Your task to perform on an android device: open app "Roku - Official Remote Control" Image 0: 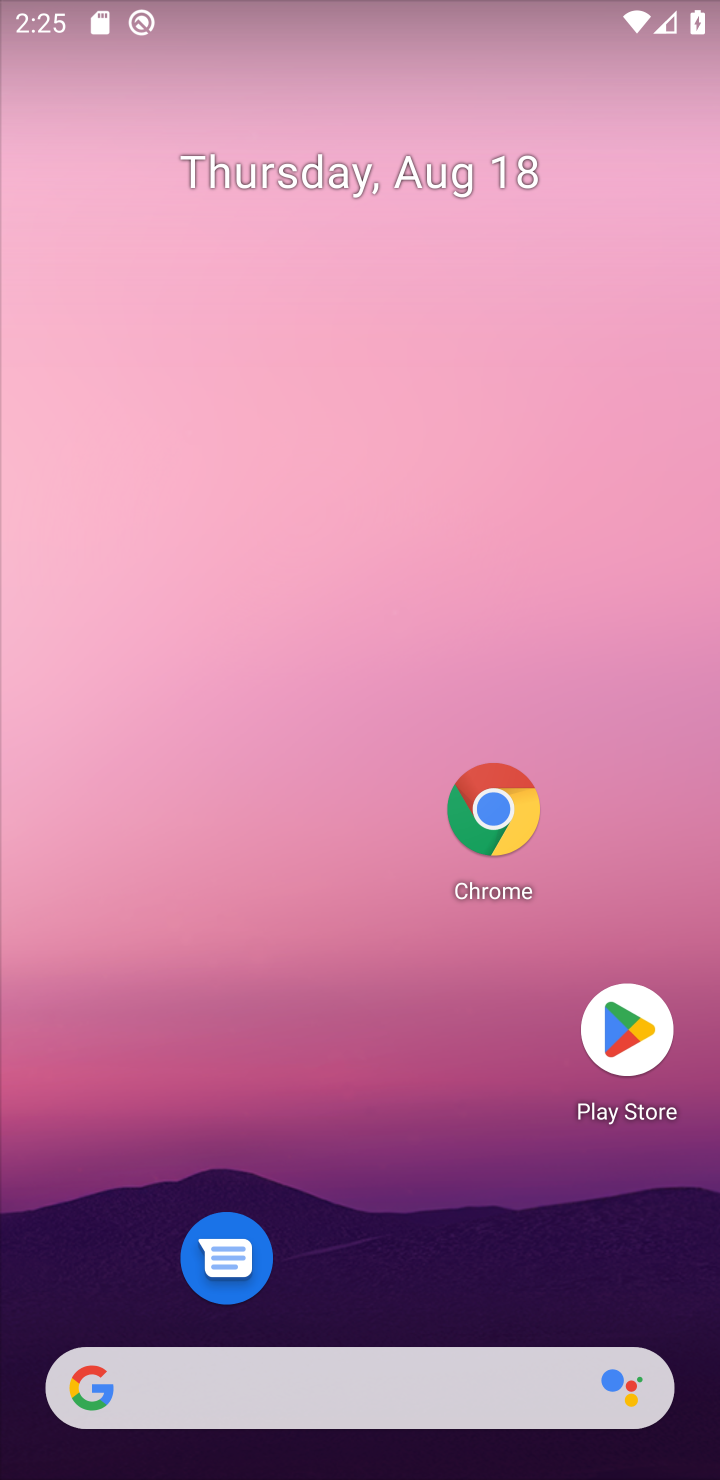
Step 0: drag from (428, 1351) to (536, 394)
Your task to perform on an android device: open app "Roku - Official Remote Control" Image 1: 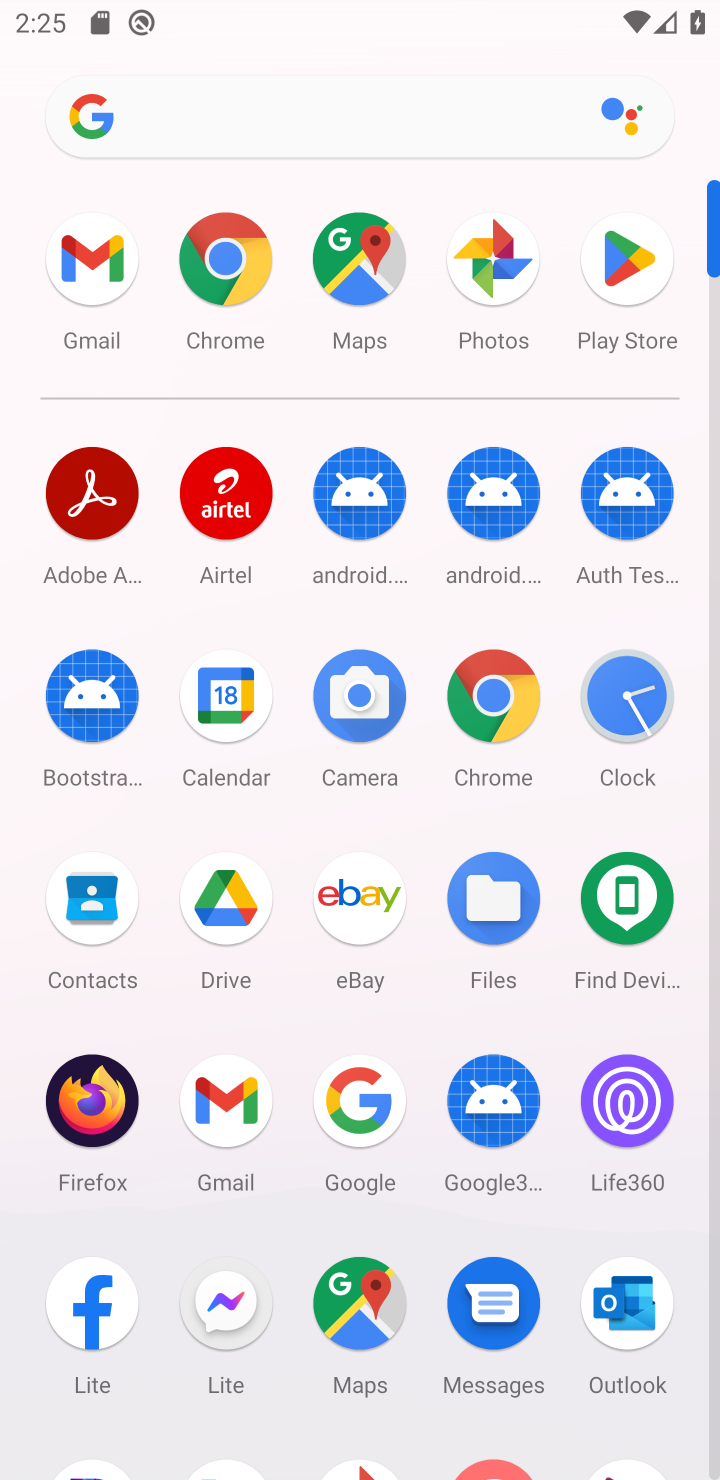
Step 1: click (637, 290)
Your task to perform on an android device: open app "Roku - Official Remote Control" Image 2: 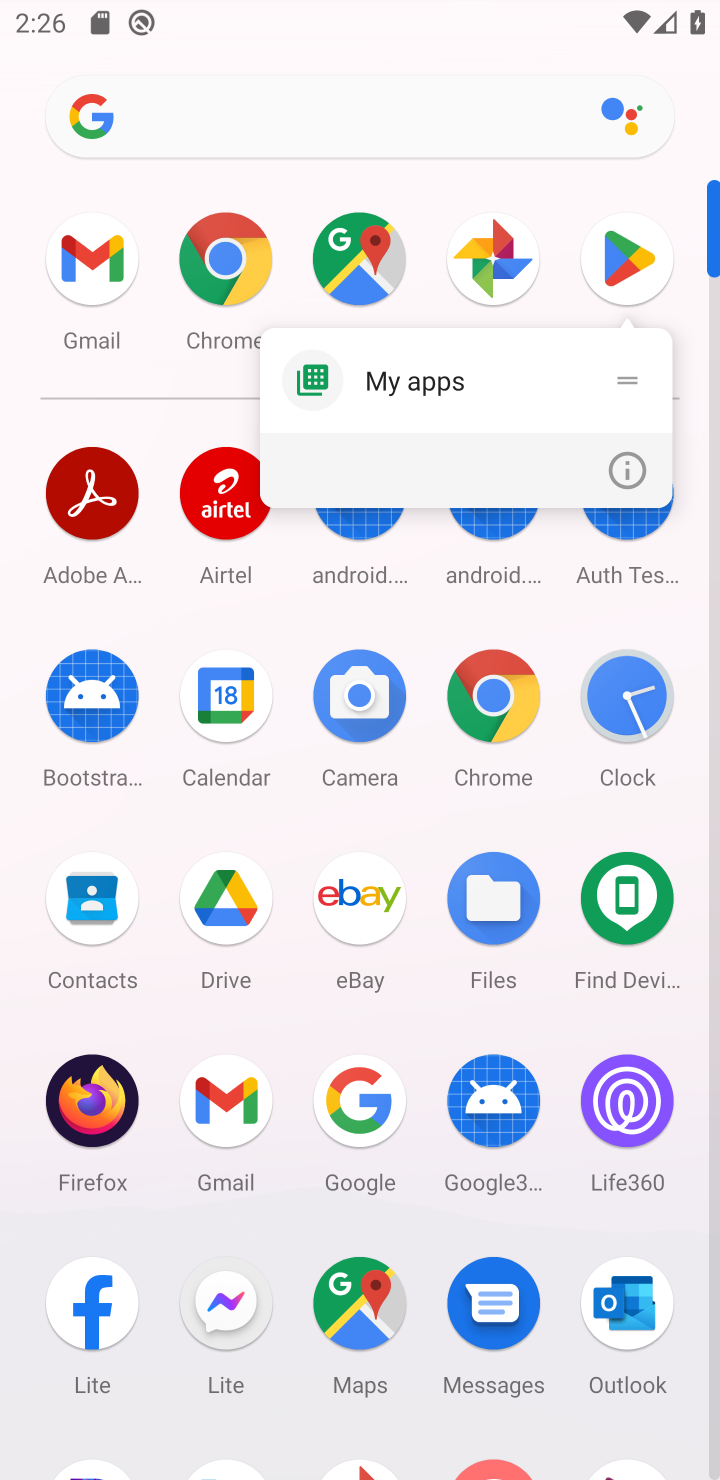
Step 2: click (621, 251)
Your task to perform on an android device: open app "Roku - Official Remote Control" Image 3: 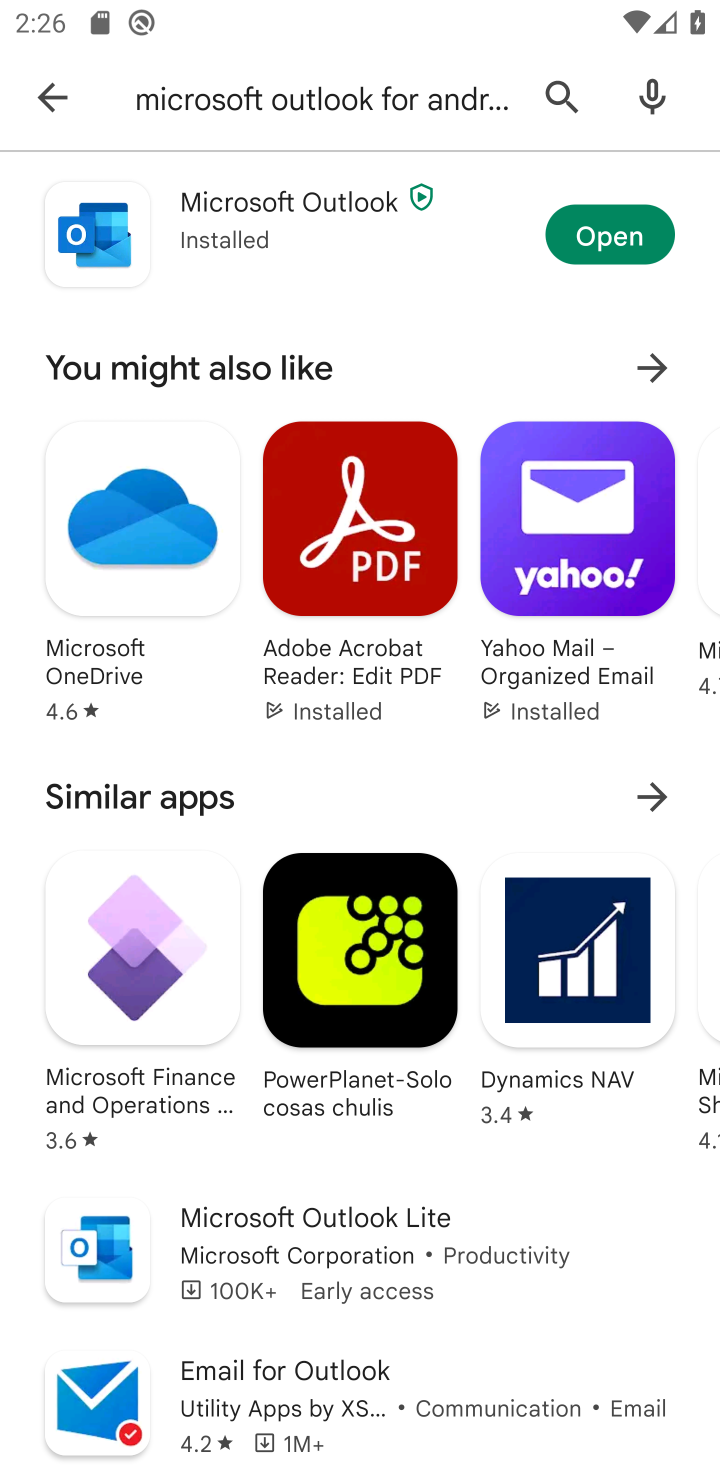
Step 3: click (51, 111)
Your task to perform on an android device: open app "Roku - Official Remote Control" Image 4: 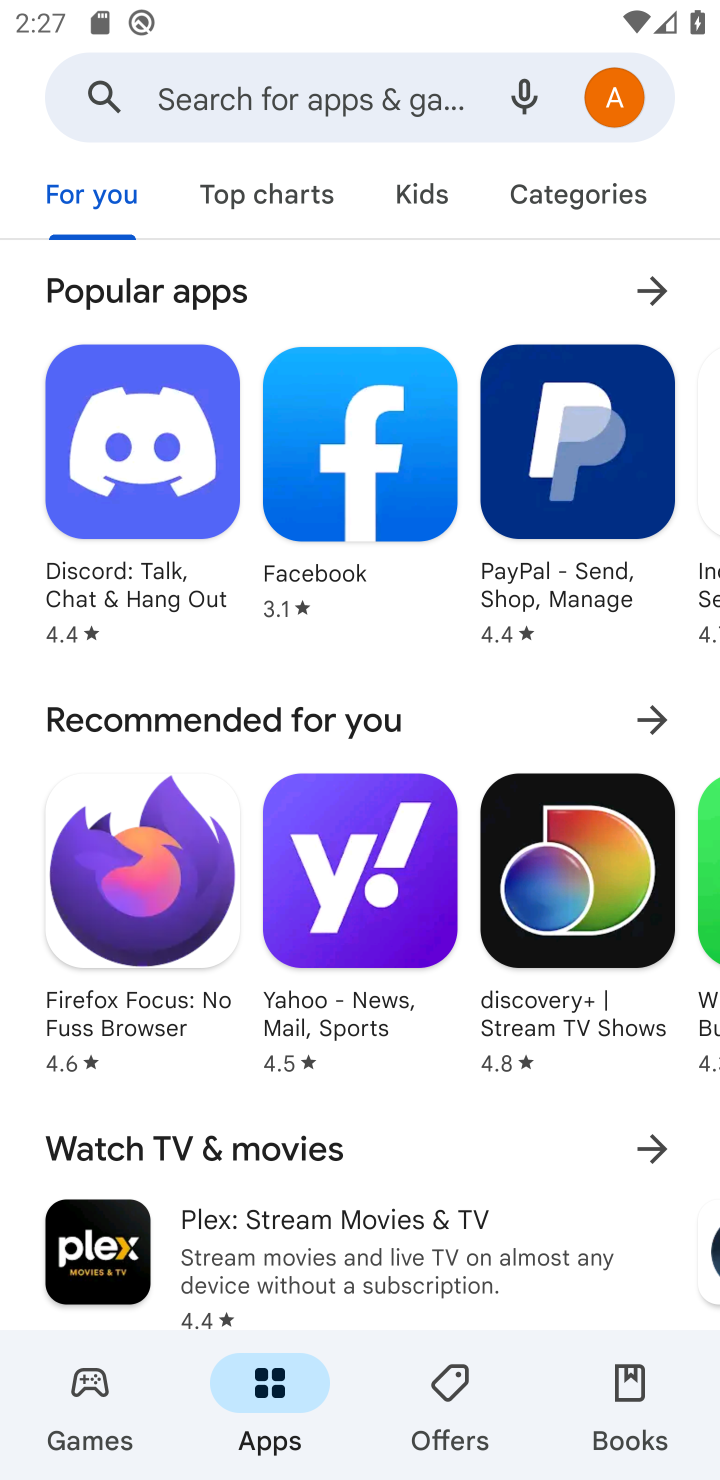
Step 4: click (351, 89)
Your task to perform on an android device: open app "Roku - Official Remote Control" Image 5: 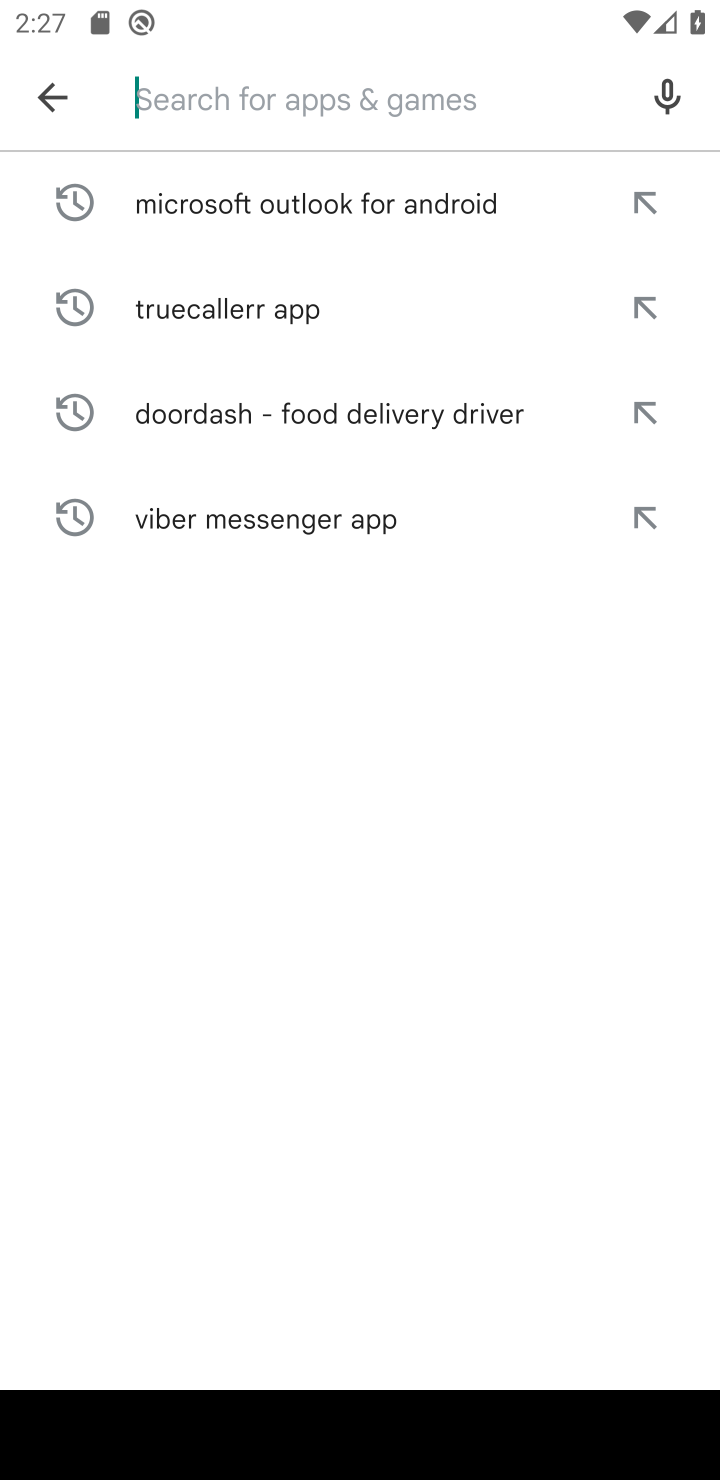
Step 5: type "Roku - Official Remote Control "
Your task to perform on an android device: open app "Roku - Official Remote Control" Image 6: 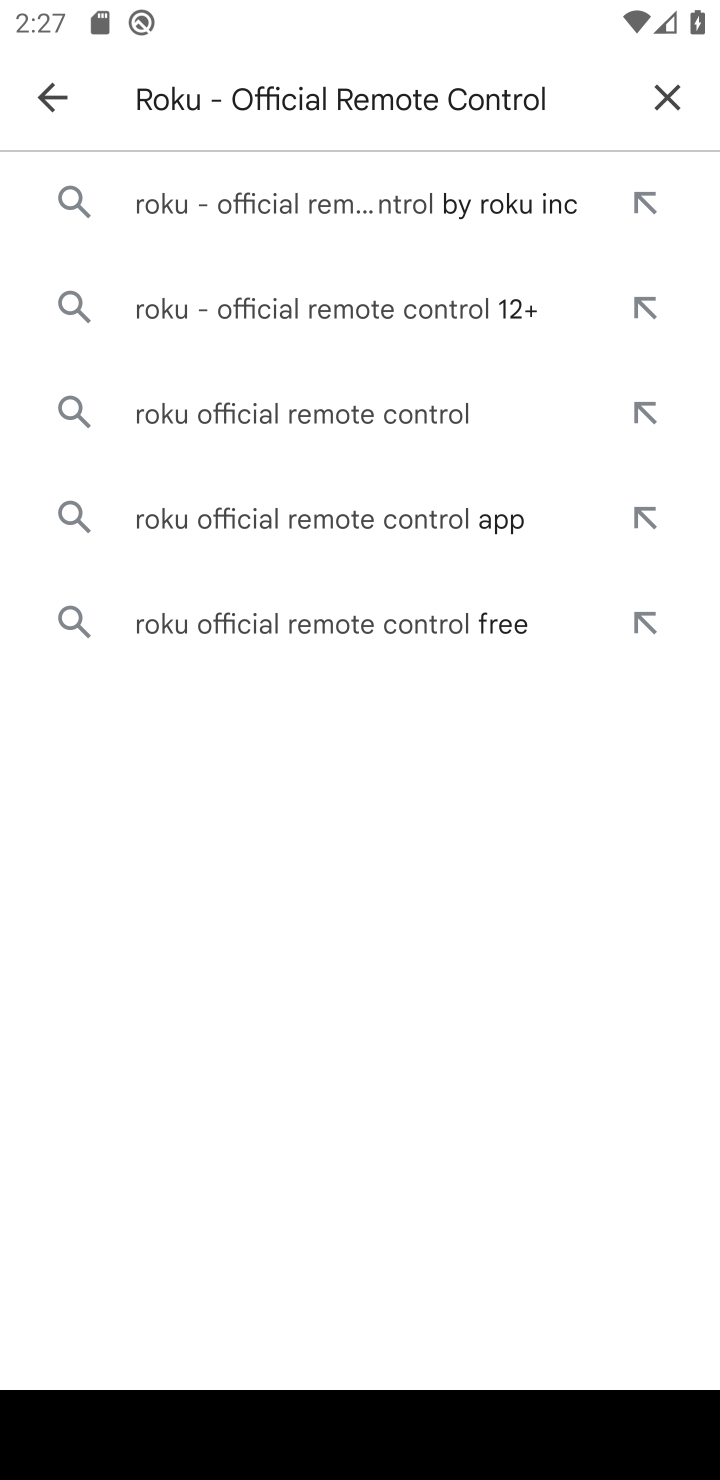
Step 6: click (275, 206)
Your task to perform on an android device: open app "Roku - Official Remote Control" Image 7: 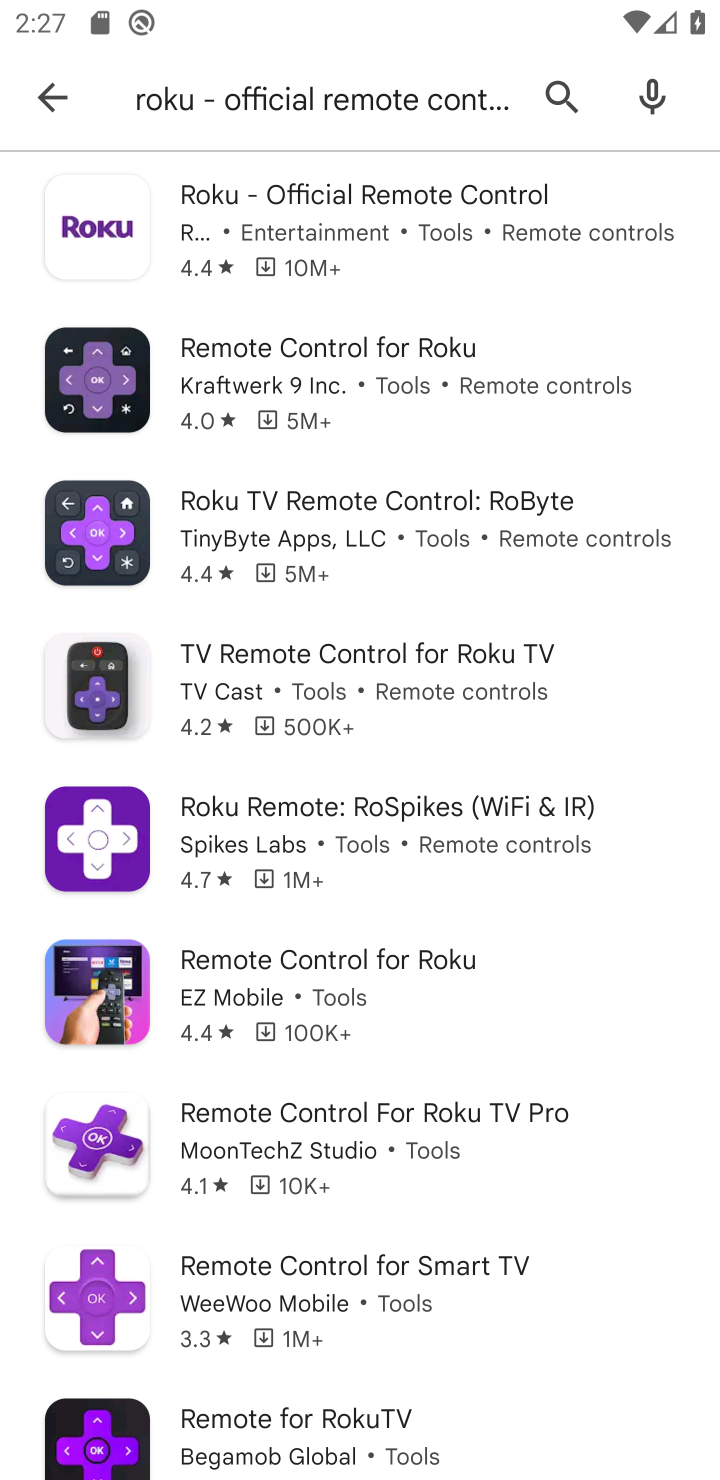
Step 7: click (326, 238)
Your task to perform on an android device: open app "Roku - Official Remote Control" Image 8: 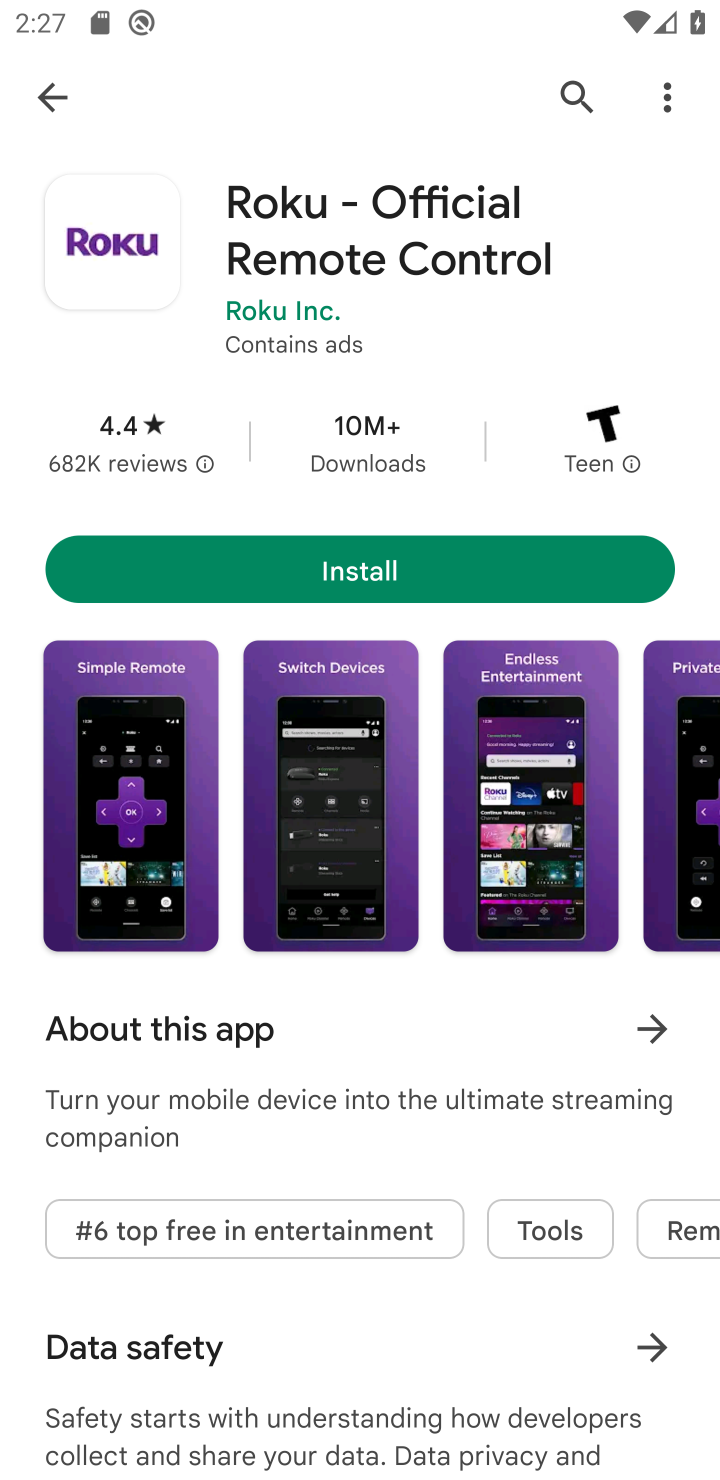
Step 8: click (403, 556)
Your task to perform on an android device: open app "Roku - Official Remote Control" Image 9: 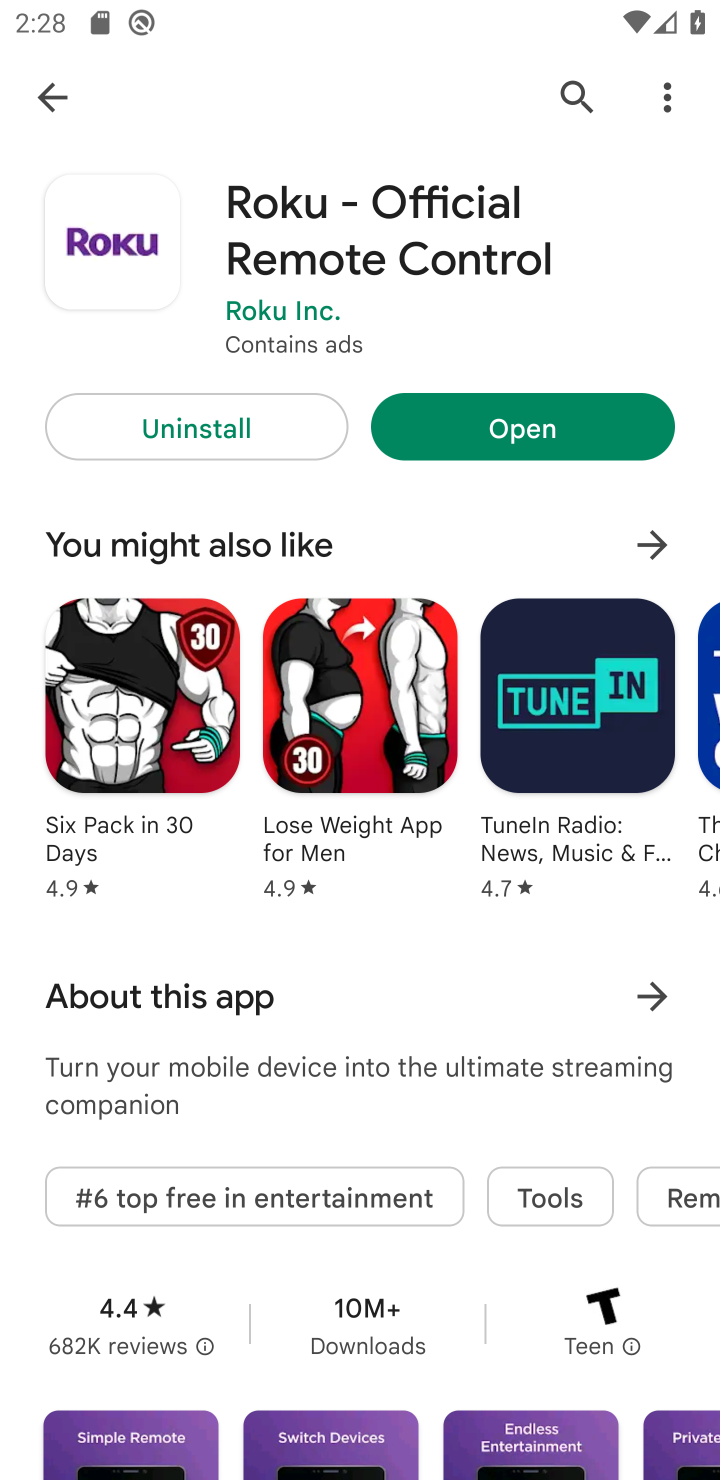
Step 9: click (527, 414)
Your task to perform on an android device: open app "Roku - Official Remote Control" Image 10: 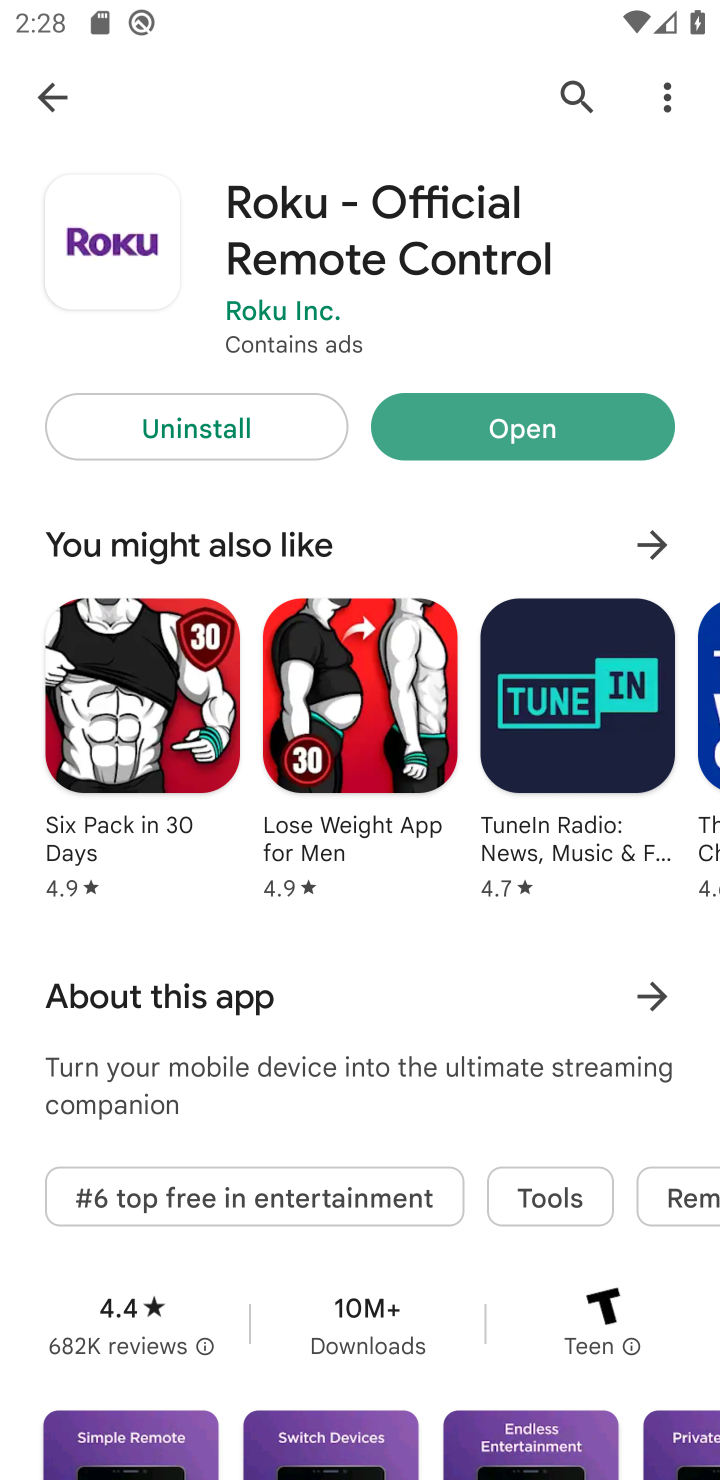
Step 10: task complete